Your task to perform on an android device: search for starred emails in the gmail app Image 0: 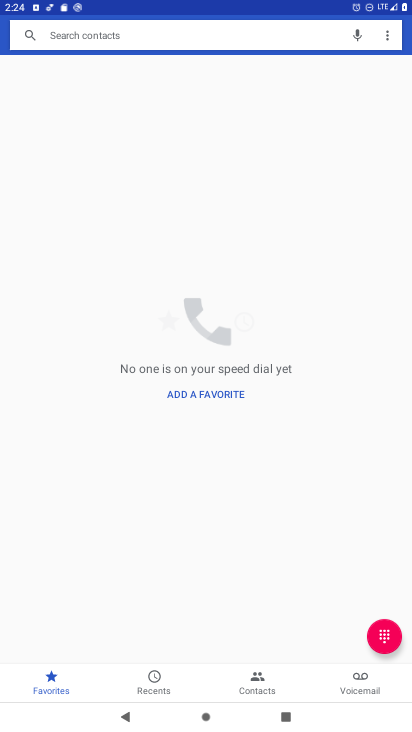
Step 0: press home button
Your task to perform on an android device: search for starred emails in the gmail app Image 1: 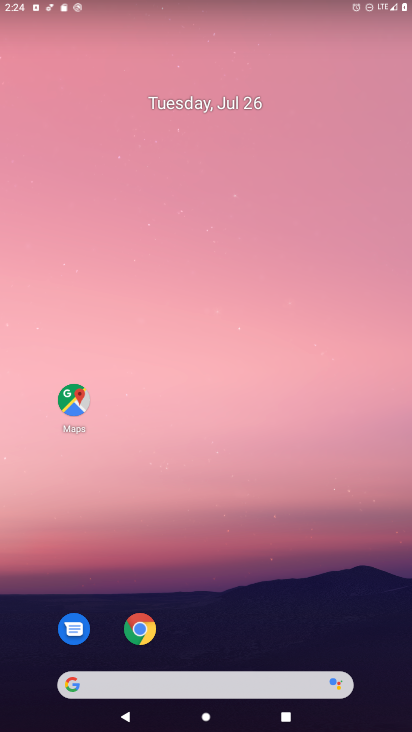
Step 1: drag from (398, 682) to (341, 217)
Your task to perform on an android device: search for starred emails in the gmail app Image 2: 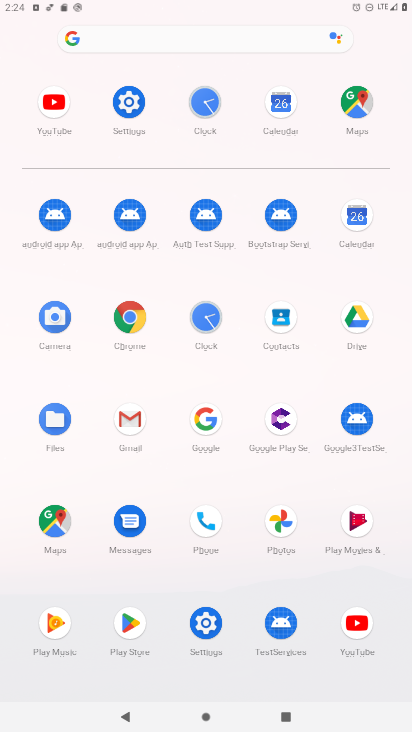
Step 2: click (130, 417)
Your task to perform on an android device: search for starred emails in the gmail app Image 3: 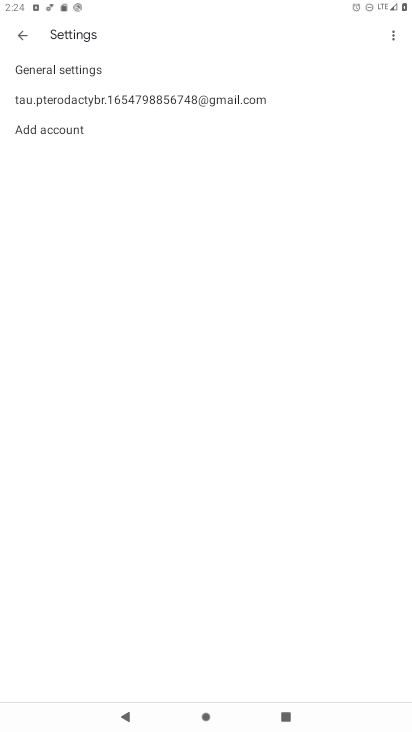
Step 3: press back button
Your task to perform on an android device: search for starred emails in the gmail app Image 4: 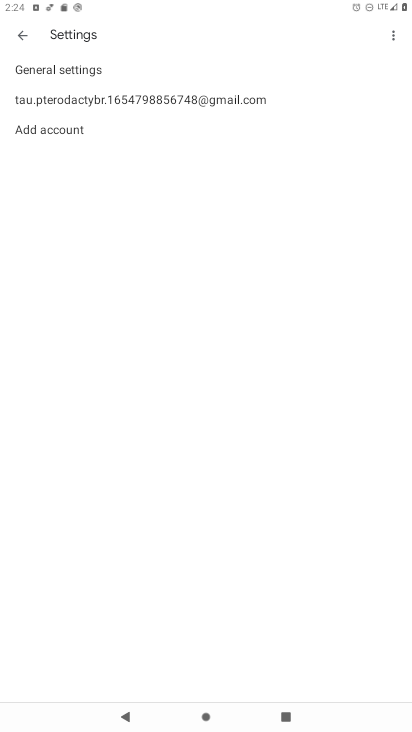
Step 4: press back button
Your task to perform on an android device: search for starred emails in the gmail app Image 5: 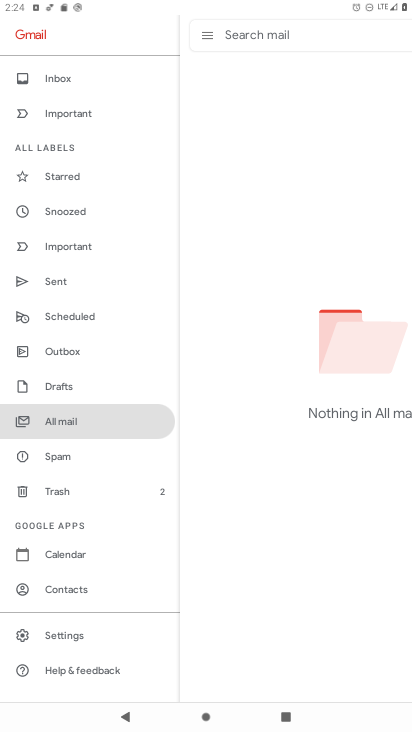
Step 5: click (61, 176)
Your task to perform on an android device: search for starred emails in the gmail app Image 6: 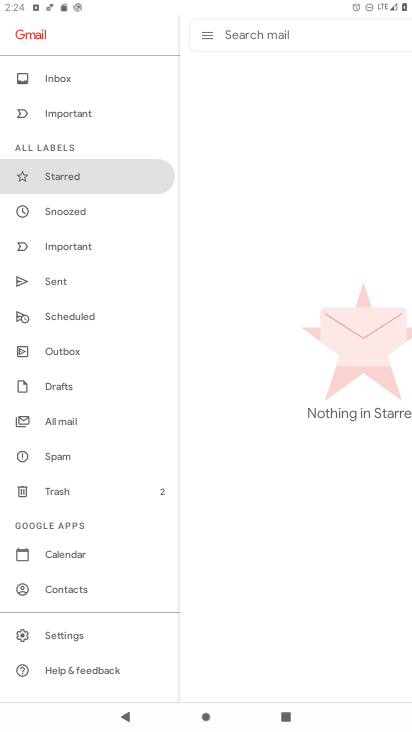
Step 6: task complete